Your task to perform on an android device: Go to Google maps Image 0: 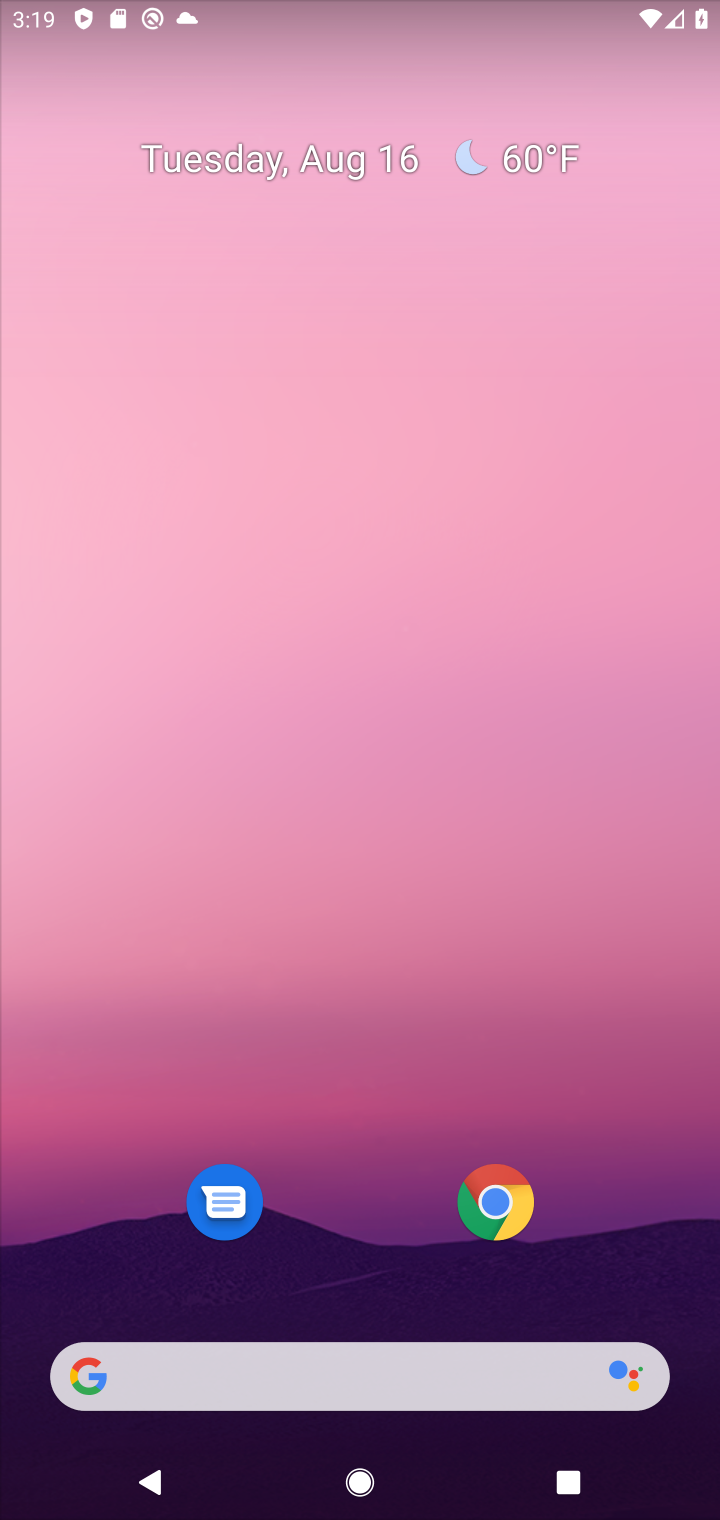
Step 0: drag from (338, 1210) to (543, 96)
Your task to perform on an android device: Go to Google maps Image 1: 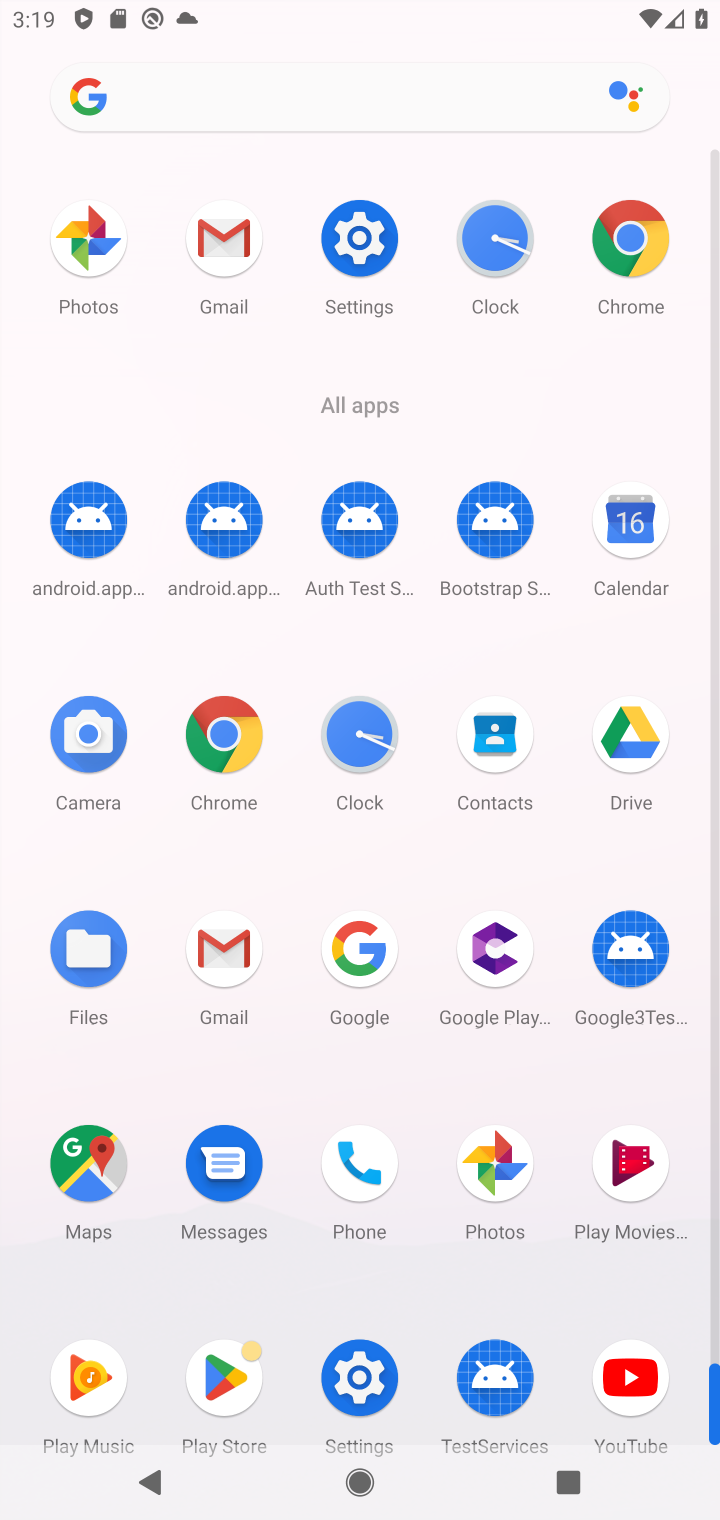
Step 1: click (92, 1176)
Your task to perform on an android device: Go to Google maps Image 2: 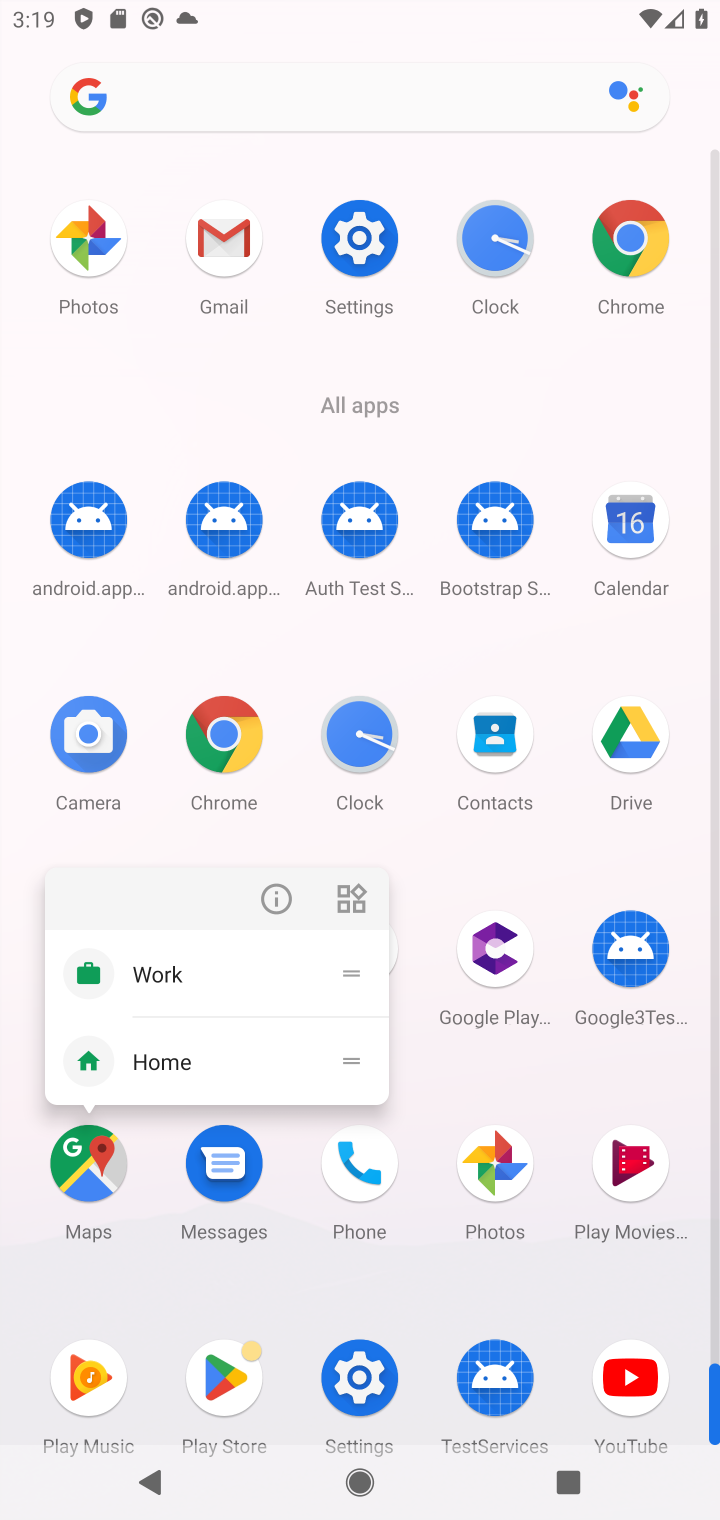
Step 2: click (94, 1174)
Your task to perform on an android device: Go to Google maps Image 3: 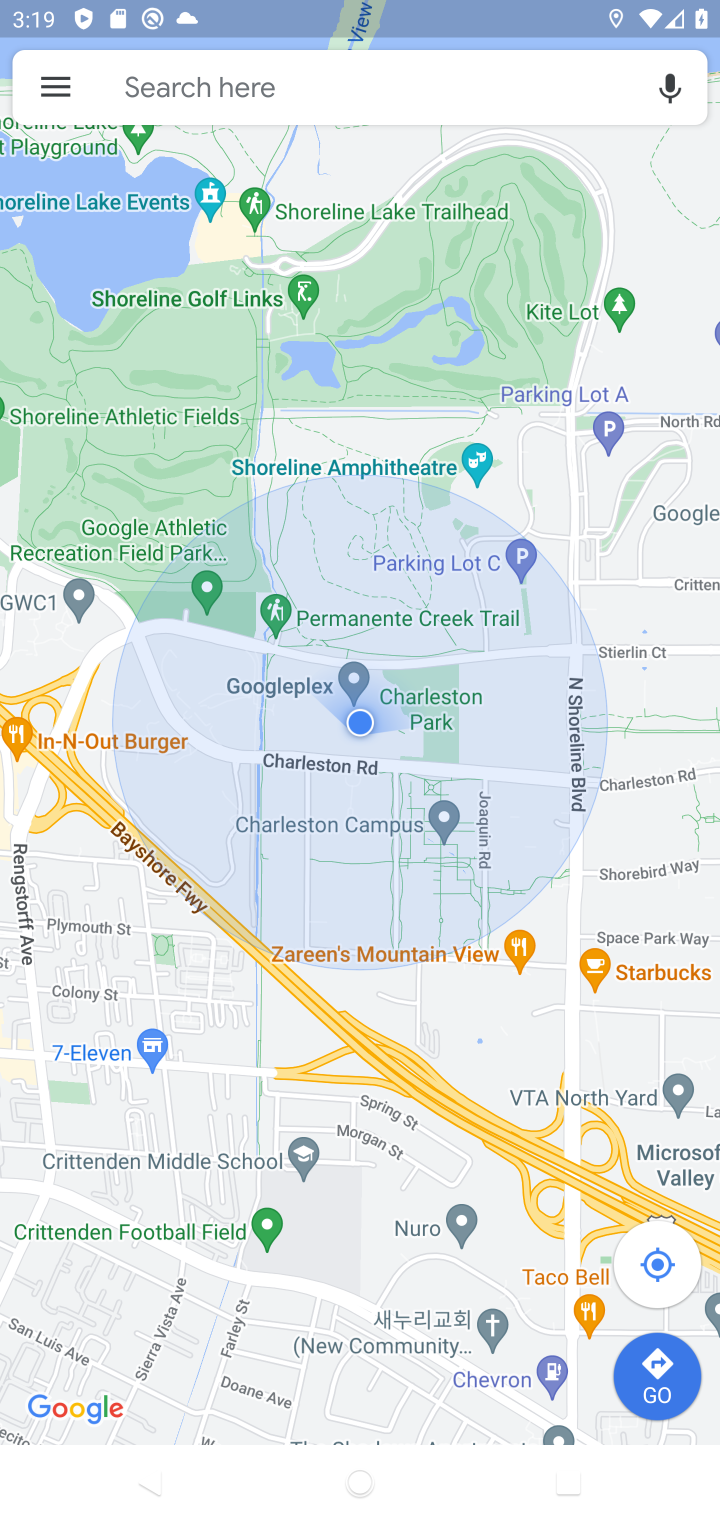
Step 3: click (55, 103)
Your task to perform on an android device: Go to Google maps Image 4: 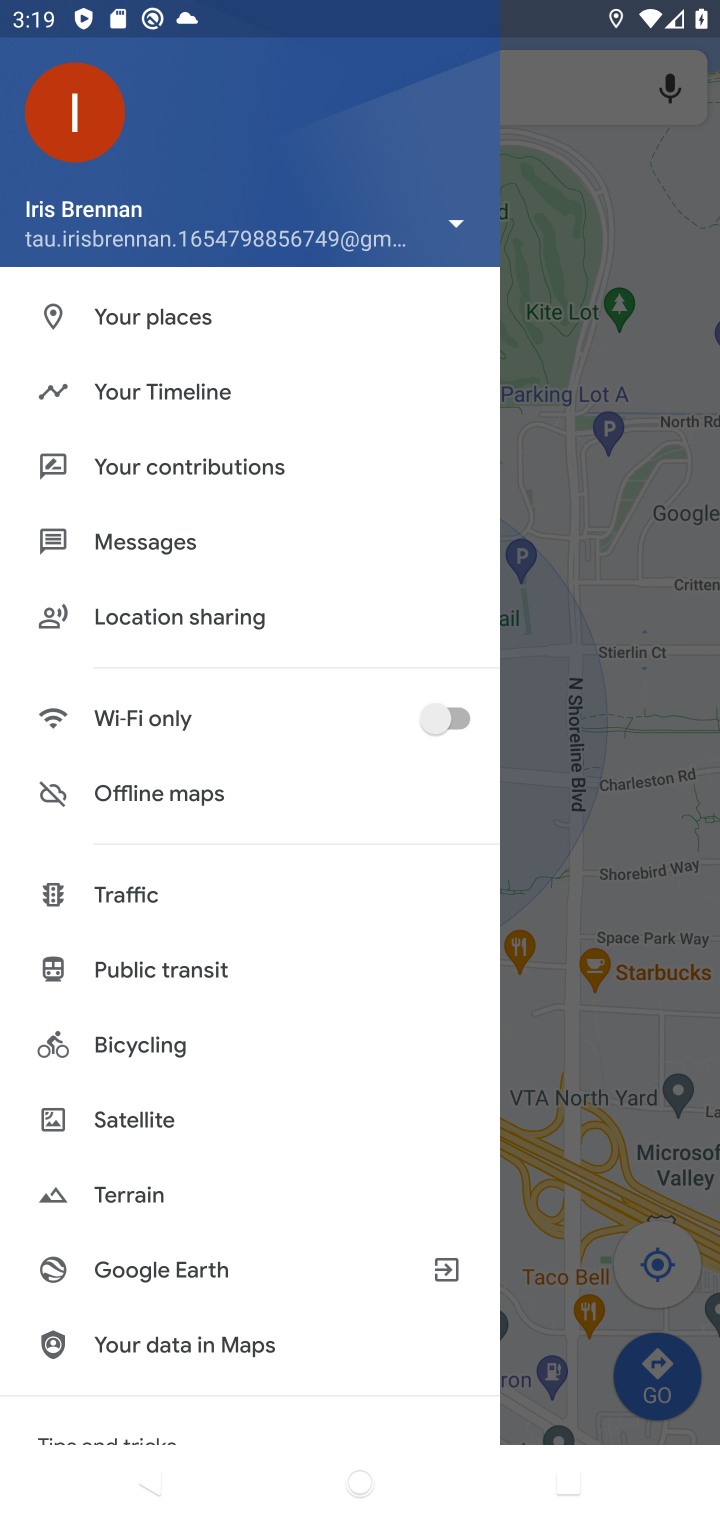
Step 4: task complete